Your task to perform on an android device: turn off javascript in the chrome app Image 0: 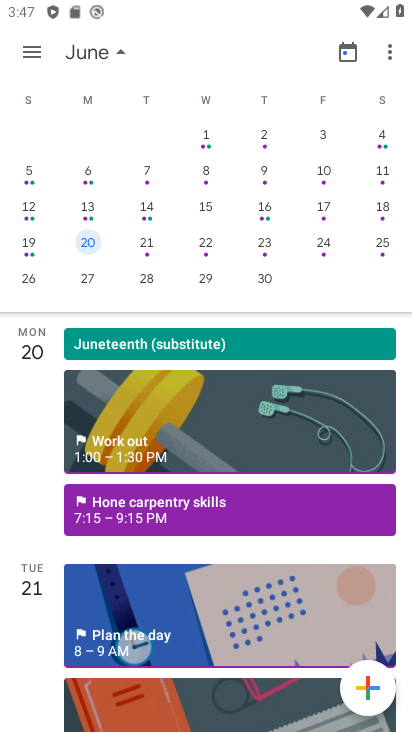
Step 0: press home button
Your task to perform on an android device: turn off javascript in the chrome app Image 1: 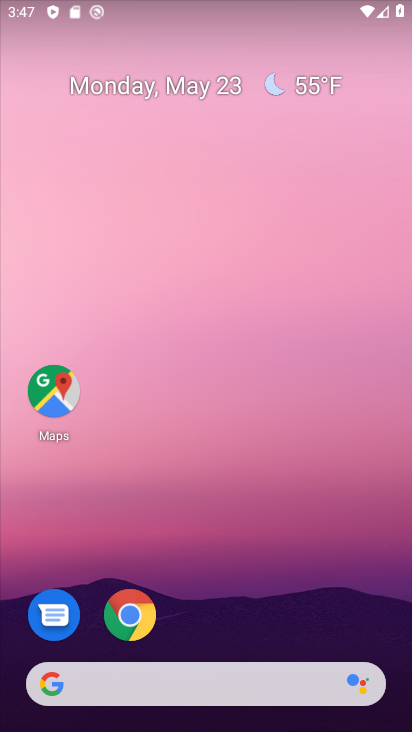
Step 1: drag from (382, 623) to (388, 188)
Your task to perform on an android device: turn off javascript in the chrome app Image 2: 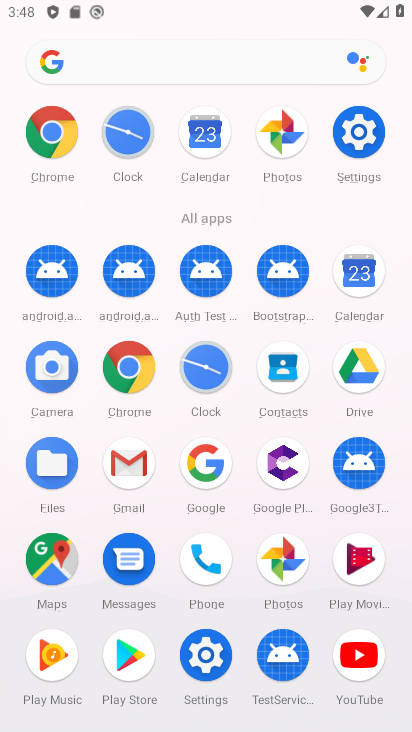
Step 2: click (144, 378)
Your task to perform on an android device: turn off javascript in the chrome app Image 3: 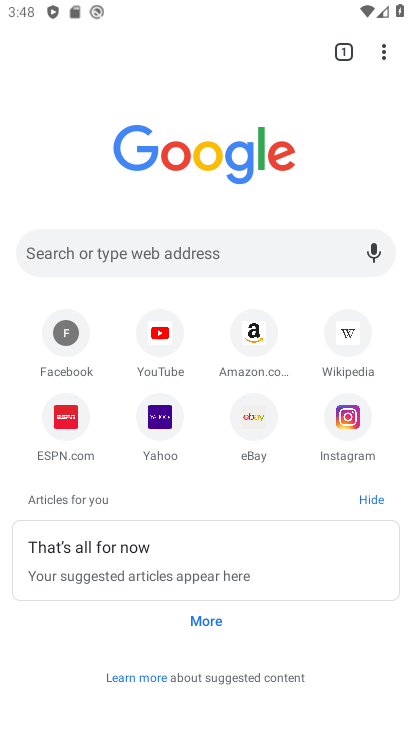
Step 3: click (381, 60)
Your task to perform on an android device: turn off javascript in the chrome app Image 4: 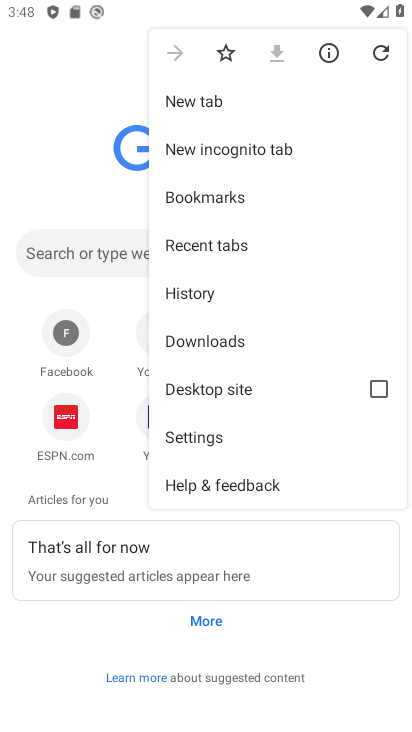
Step 4: click (225, 441)
Your task to perform on an android device: turn off javascript in the chrome app Image 5: 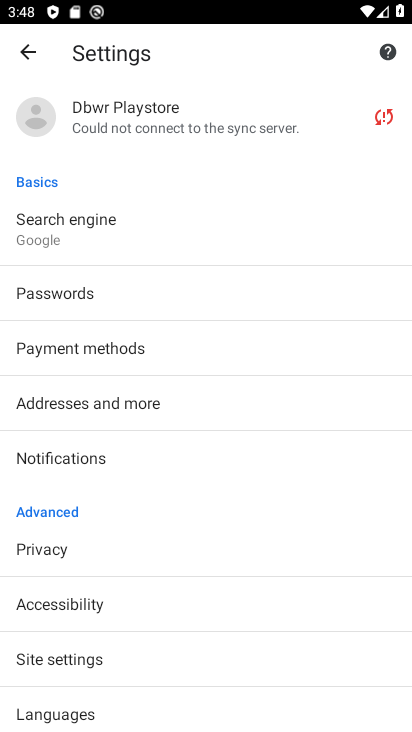
Step 5: drag from (282, 580) to (296, 440)
Your task to perform on an android device: turn off javascript in the chrome app Image 6: 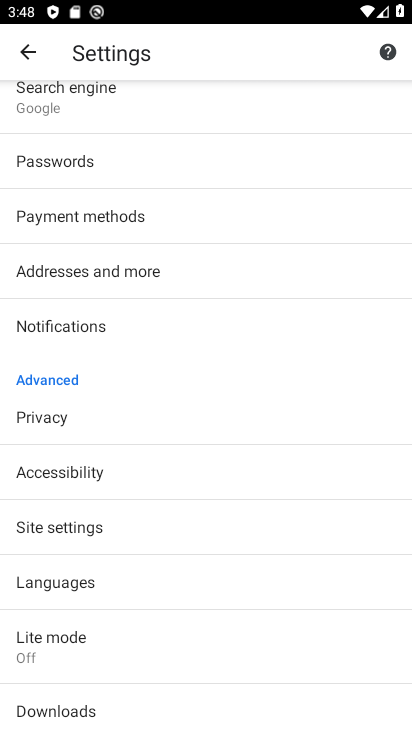
Step 6: drag from (289, 595) to (292, 475)
Your task to perform on an android device: turn off javascript in the chrome app Image 7: 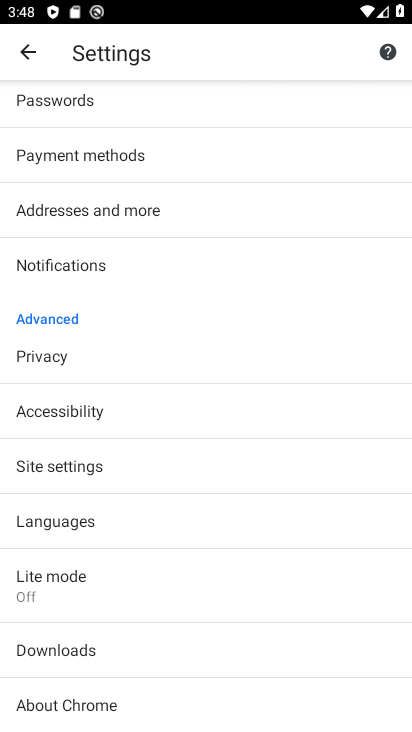
Step 7: drag from (293, 532) to (297, 452)
Your task to perform on an android device: turn off javascript in the chrome app Image 8: 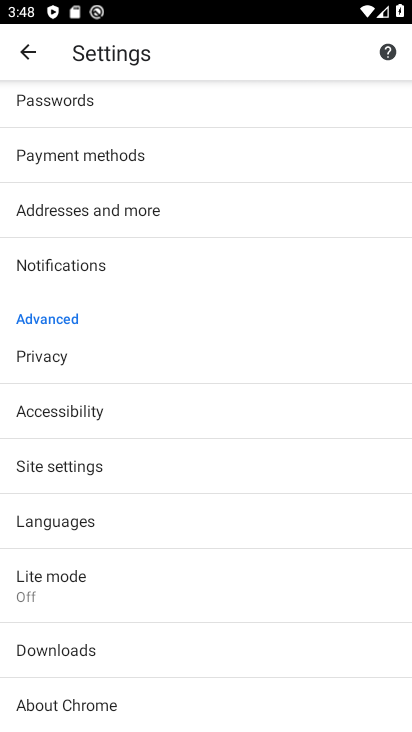
Step 8: drag from (304, 338) to (276, 463)
Your task to perform on an android device: turn off javascript in the chrome app Image 9: 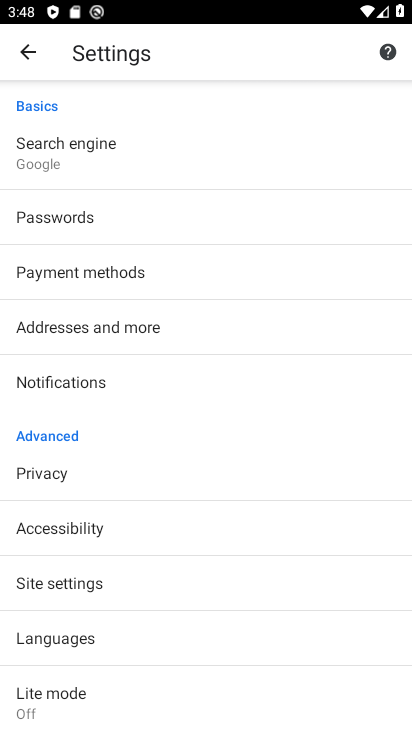
Step 9: drag from (303, 276) to (289, 451)
Your task to perform on an android device: turn off javascript in the chrome app Image 10: 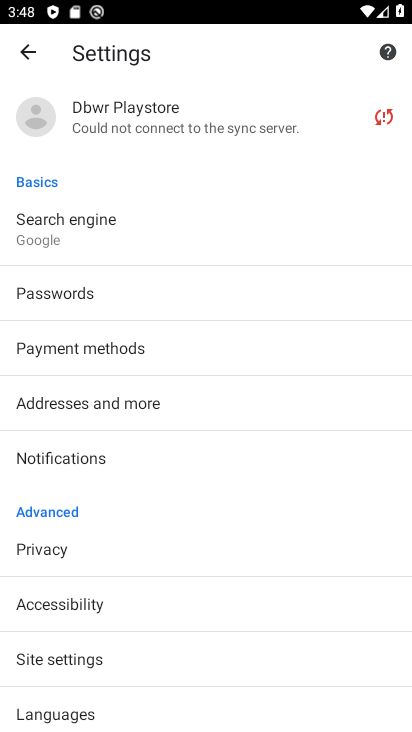
Step 10: drag from (319, 550) to (318, 429)
Your task to perform on an android device: turn off javascript in the chrome app Image 11: 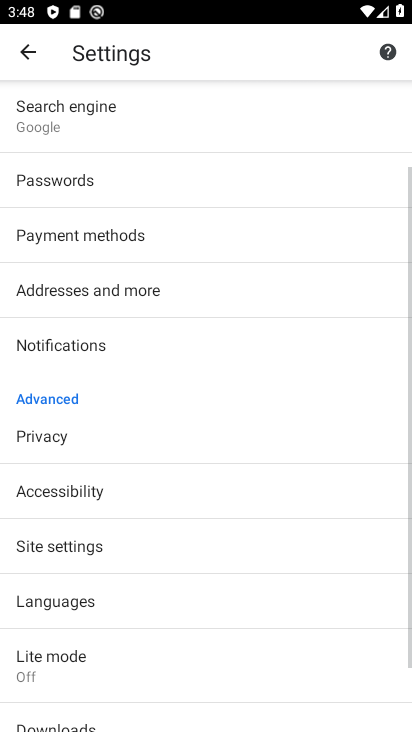
Step 11: drag from (298, 596) to (287, 492)
Your task to perform on an android device: turn off javascript in the chrome app Image 12: 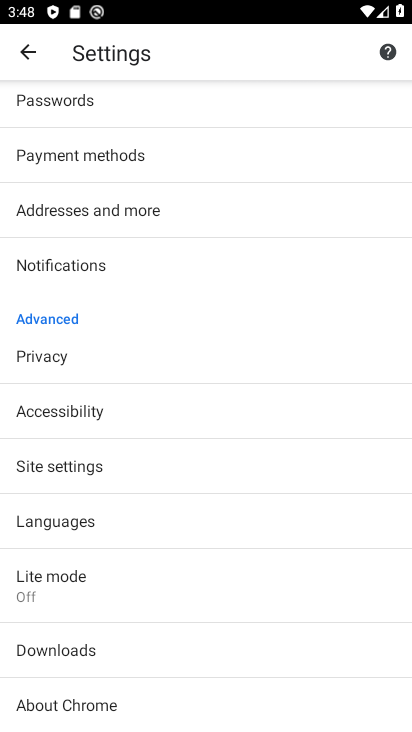
Step 12: click (268, 463)
Your task to perform on an android device: turn off javascript in the chrome app Image 13: 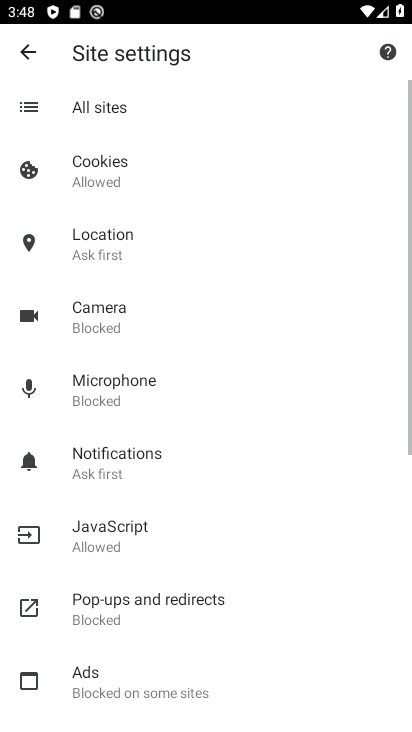
Step 13: drag from (298, 595) to (299, 485)
Your task to perform on an android device: turn off javascript in the chrome app Image 14: 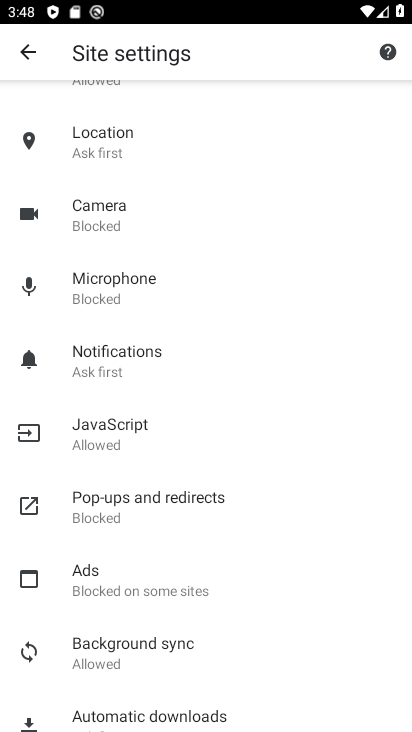
Step 14: drag from (314, 639) to (319, 495)
Your task to perform on an android device: turn off javascript in the chrome app Image 15: 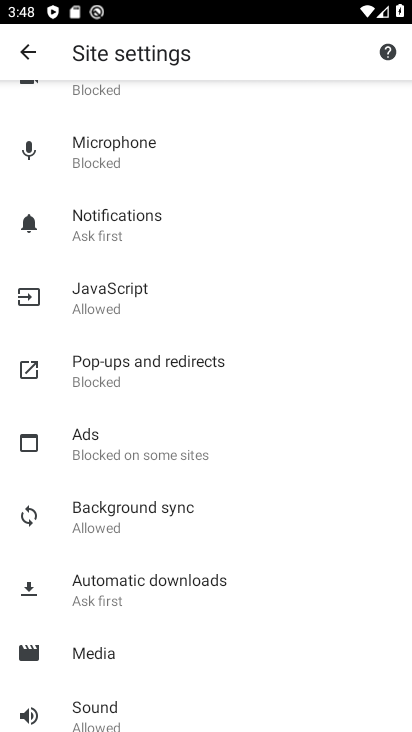
Step 15: drag from (306, 622) to (291, 403)
Your task to perform on an android device: turn off javascript in the chrome app Image 16: 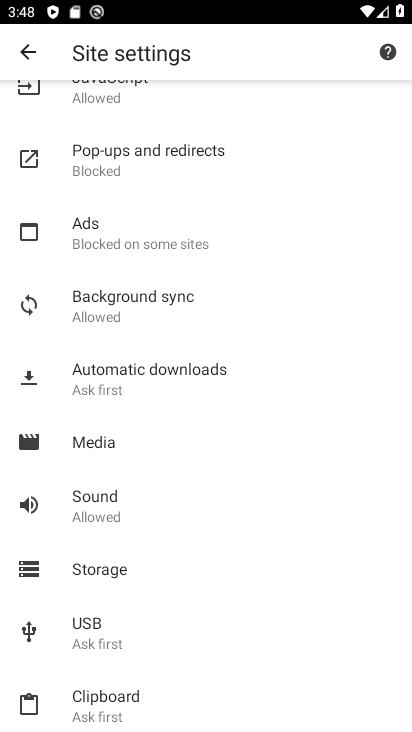
Step 16: drag from (284, 577) to (286, 354)
Your task to perform on an android device: turn off javascript in the chrome app Image 17: 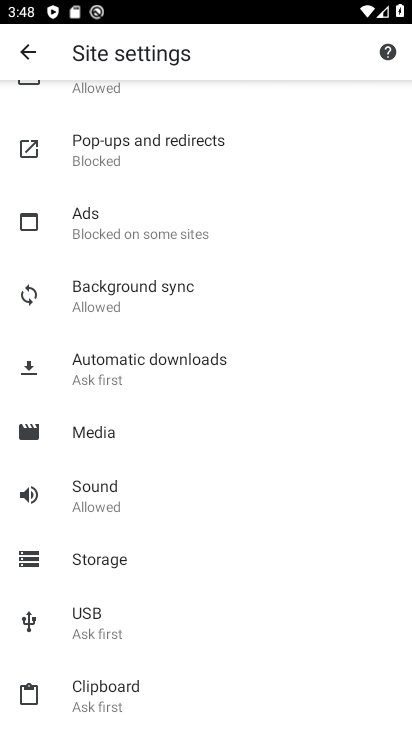
Step 17: drag from (270, 593) to (269, 415)
Your task to perform on an android device: turn off javascript in the chrome app Image 18: 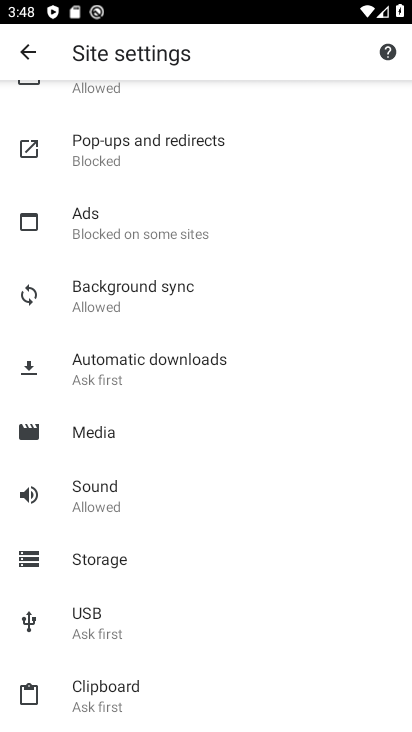
Step 18: drag from (287, 330) to (270, 523)
Your task to perform on an android device: turn off javascript in the chrome app Image 19: 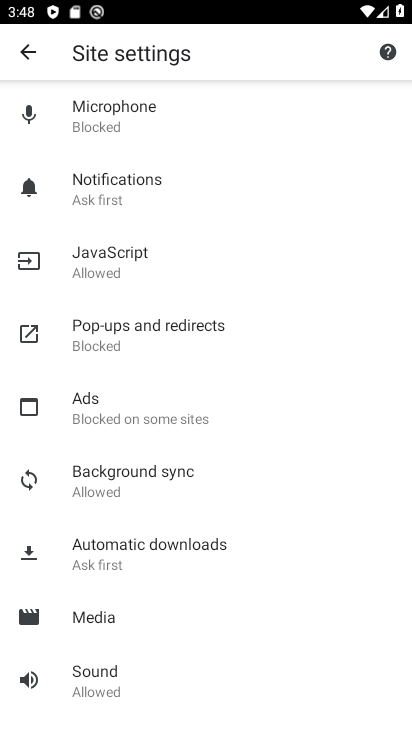
Step 19: drag from (291, 302) to (270, 480)
Your task to perform on an android device: turn off javascript in the chrome app Image 20: 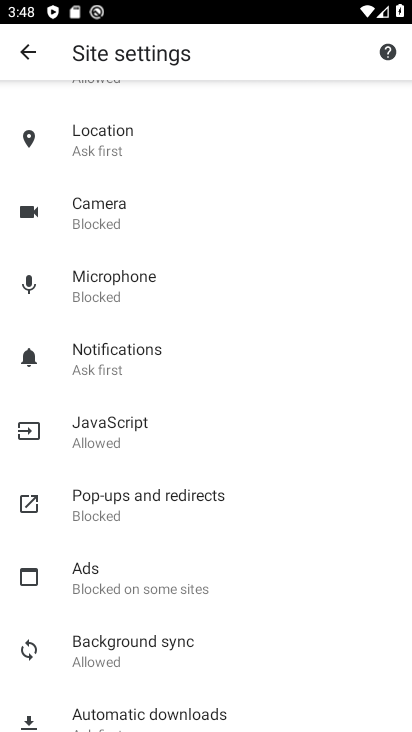
Step 20: drag from (287, 255) to (281, 448)
Your task to perform on an android device: turn off javascript in the chrome app Image 21: 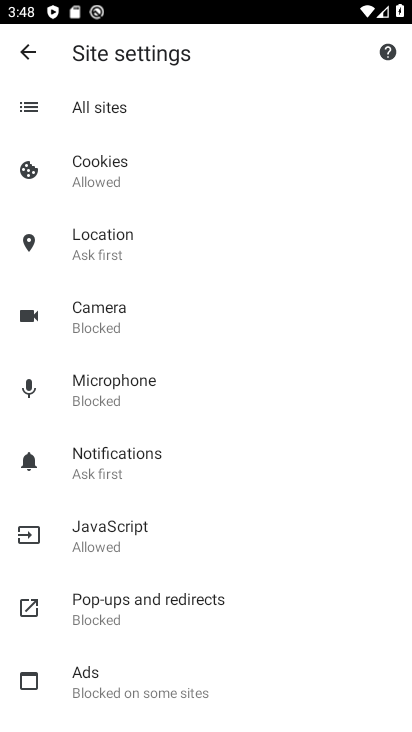
Step 21: drag from (287, 269) to (277, 474)
Your task to perform on an android device: turn off javascript in the chrome app Image 22: 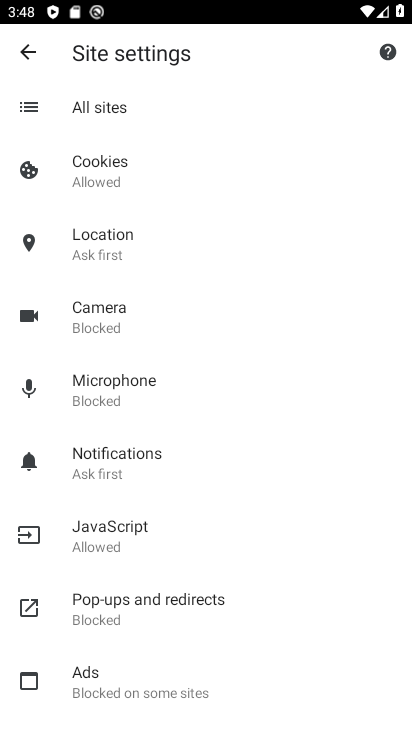
Step 22: drag from (314, 552) to (307, 418)
Your task to perform on an android device: turn off javascript in the chrome app Image 23: 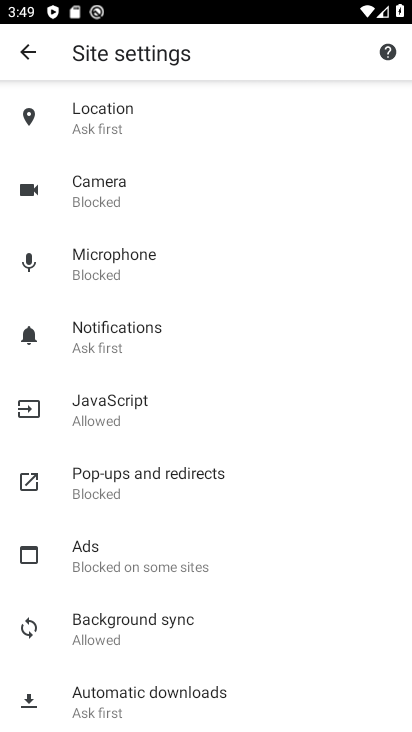
Step 23: drag from (307, 599) to (311, 410)
Your task to perform on an android device: turn off javascript in the chrome app Image 24: 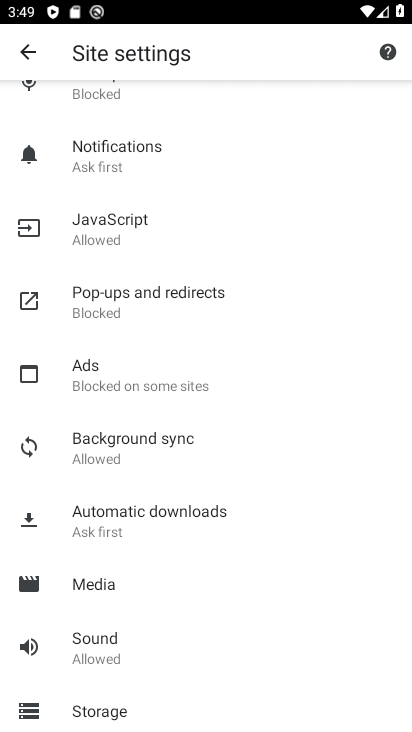
Step 24: drag from (295, 615) to (297, 441)
Your task to perform on an android device: turn off javascript in the chrome app Image 25: 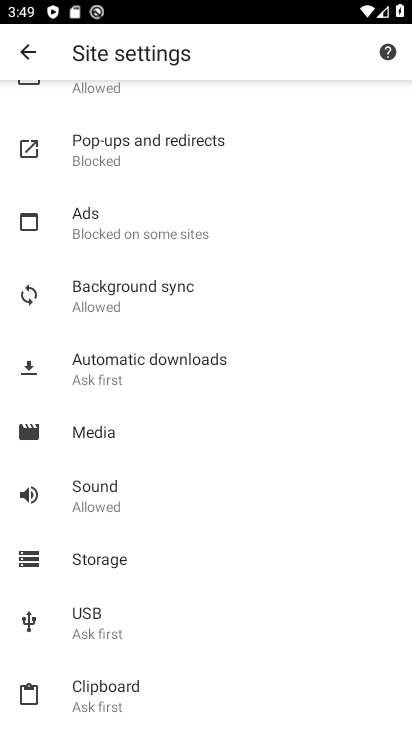
Step 25: drag from (310, 584) to (328, 380)
Your task to perform on an android device: turn off javascript in the chrome app Image 26: 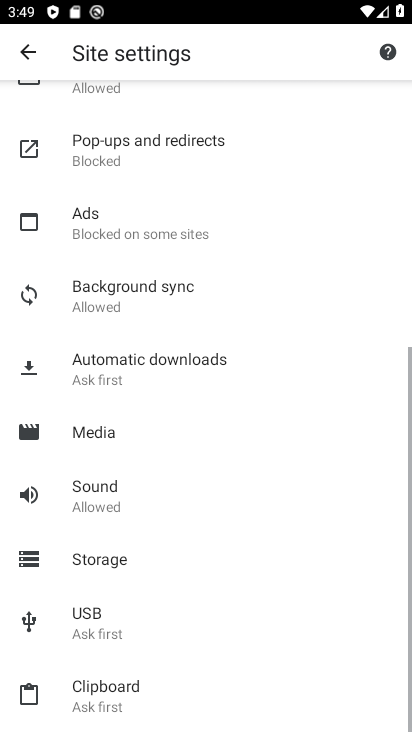
Step 26: drag from (332, 315) to (318, 465)
Your task to perform on an android device: turn off javascript in the chrome app Image 27: 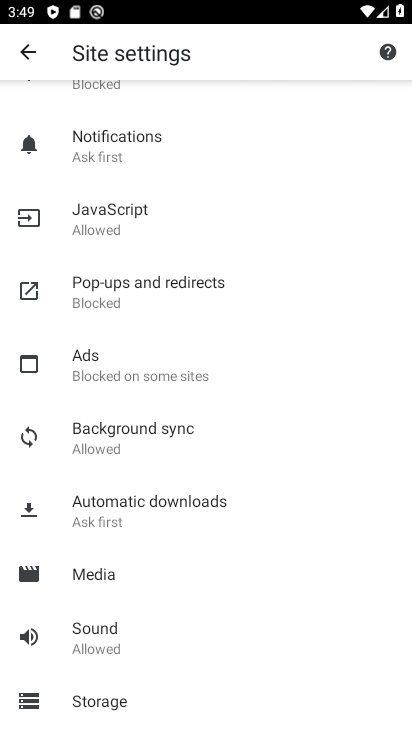
Step 27: drag from (308, 332) to (301, 485)
Your task to perform on an android device: turn off javascript in the chrome app Image 28: 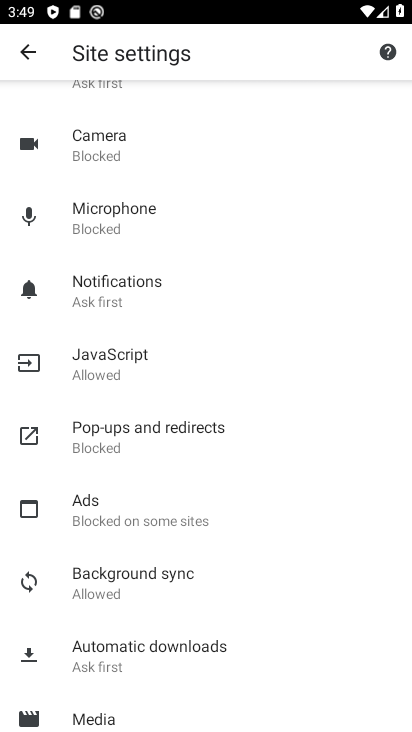
Step 28: drag from (299, 302) to (276, 563)
Your task to perform on an android device: turn off javascript in the chrome app Image 29: 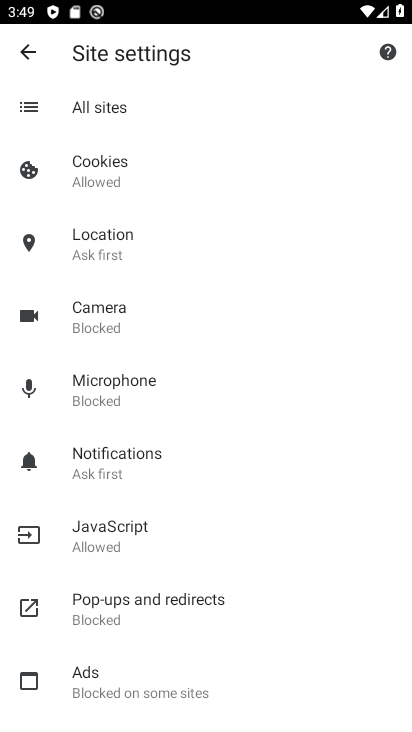
Step 29: click (106, 546)
Your task to perform on an android device: turn off javascript in the chrome app Image 30: 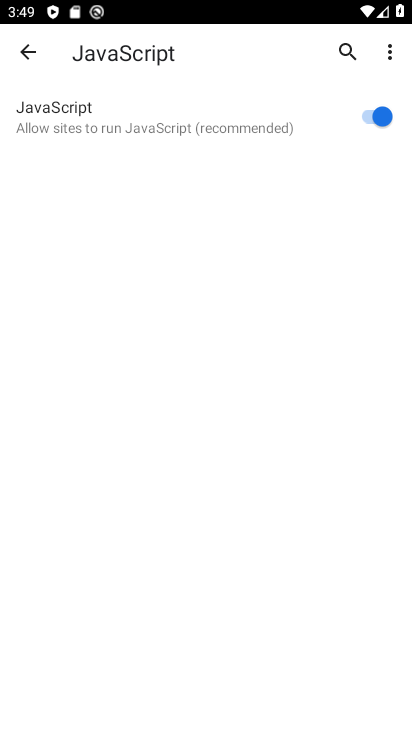
Step 30: click (386, 121)
Your task to perform on an android device: turn off javascript in the chrome app Image 31: 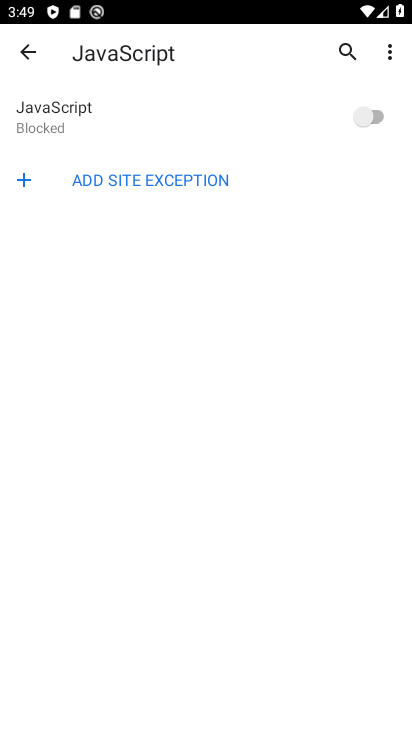
Step 31: task complete